Your task to perform on an android device: visit the assistant section in the google photos Image 0: 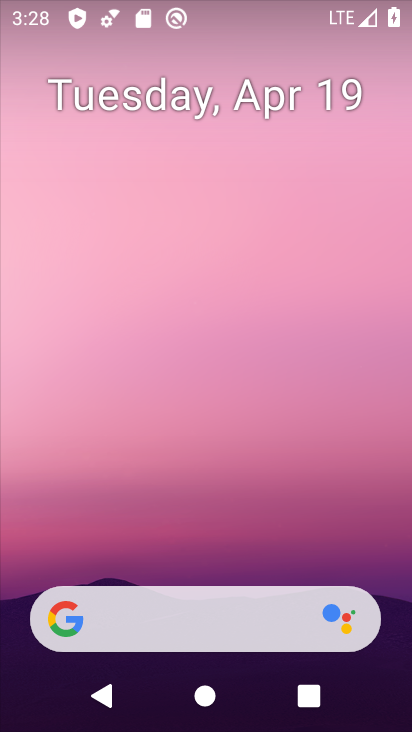
Step 0: drag from (222, 568) to (272, 152)
Your task to perform on an android device: visit the assistant section in the google photos Image 1: 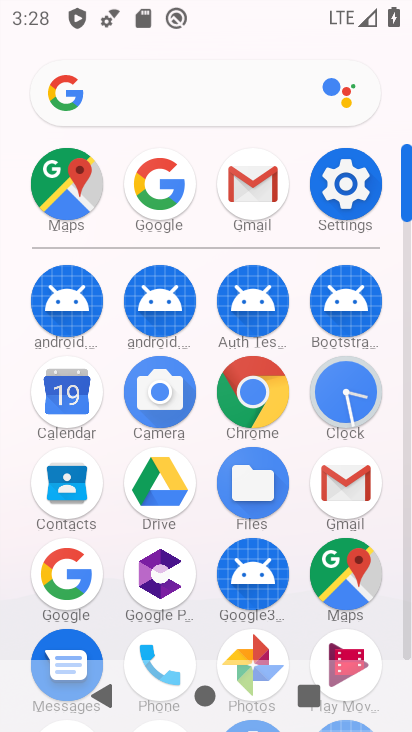
Step 1: drag from (202, 625) to (244, 365)
Your task to perform on an android device: visit the assistant section in the google photos Image 2: 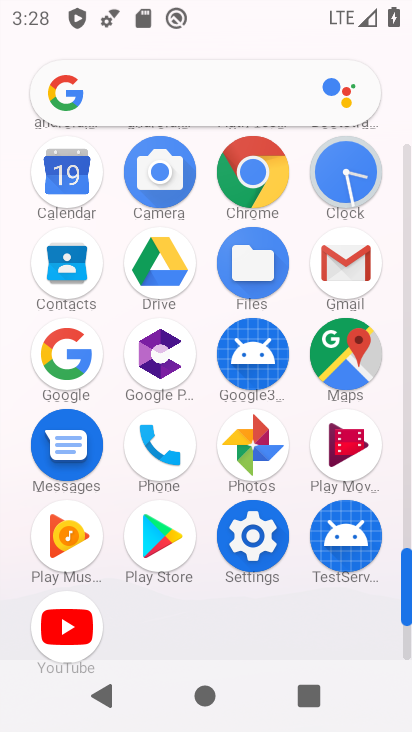
Step 2: click (258, 444)
Your task to perform on an android device: visit the assistant section in the google photos Image 3: 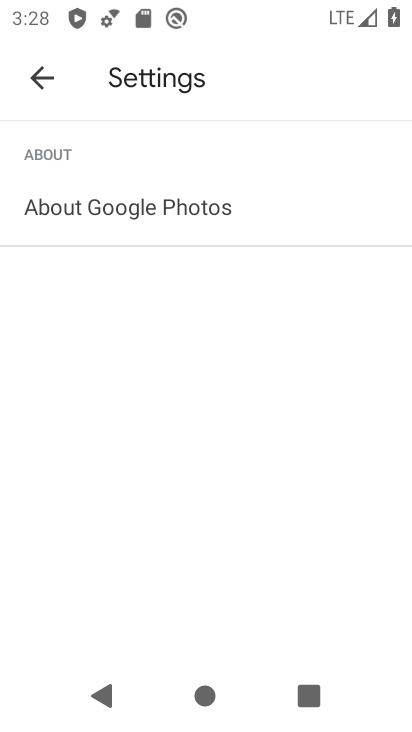
Step 3: press back button
Your task to perform on an android device: visit the assistant section in the google photos Image 4: 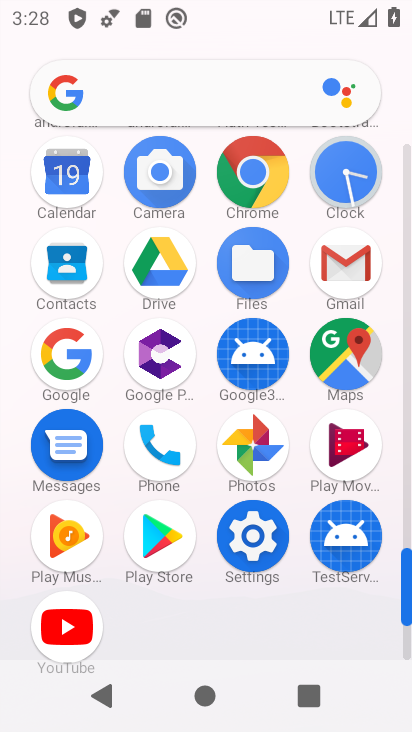
Step 4: click (255, 447)
Your task to perform on an android device: visit the assistant section in the google photos Image 5: 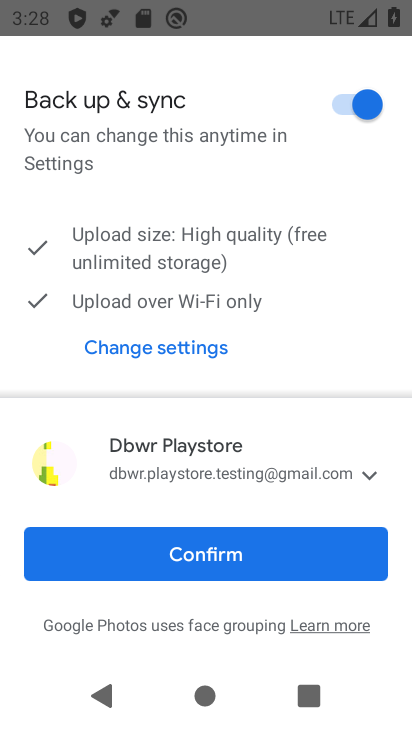
Step 5: click (205, 551)
Your task to perform on an android device: visit the assistant section in the google photos Image 6: 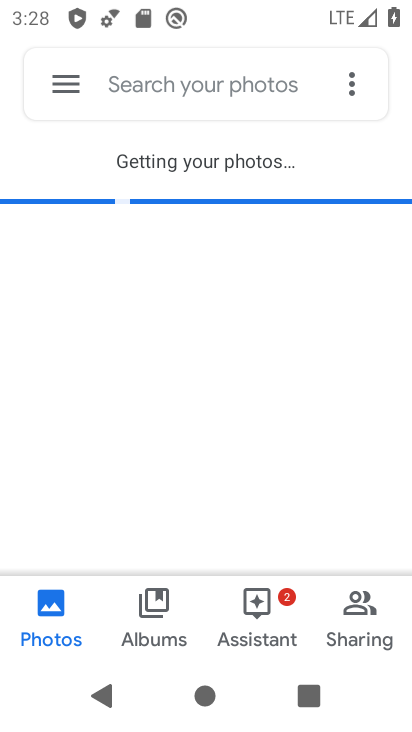
Step 6: click (267, 606)
Your task to perform on an android device: visit the assistant section in the google photos Image 7: 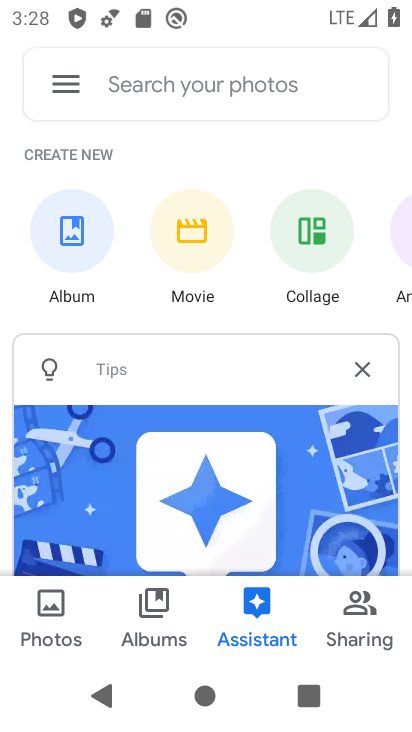
Step 7: task complete